Your task to perform on an android device: Add razer kraken to the cart on amazon.com Image 0: 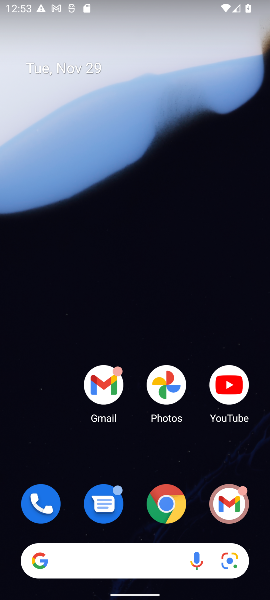
Step 0: click (167, 502)
Your task to perform on an android device: Add razer kraken to the cart on amazon.com Image 1: 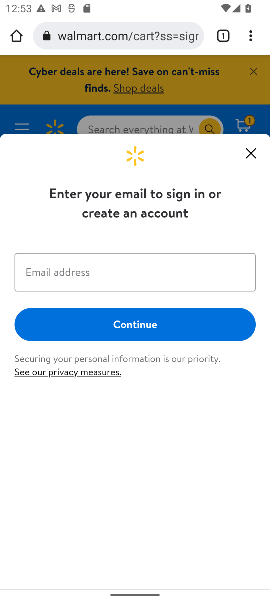
Step 1: click (102, 30)
Your task to perform on an android device: Add razer kraken to the cart on amazon.com Image 2: 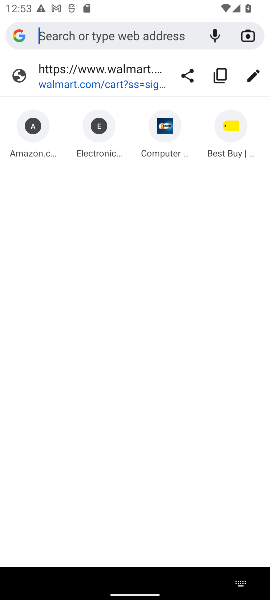
Step 2: click (27, 137)
Your task to perform on an android device: Add razer kraken to the cart on amazon.com Image 3: 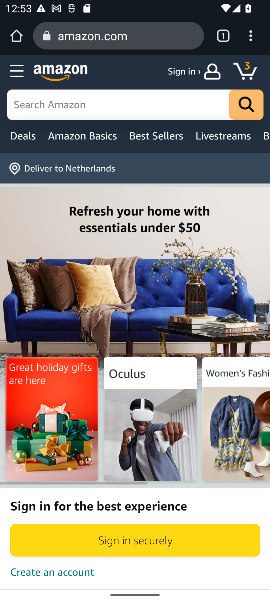
Step 3: click (86, 106)
Your task to perform on an android device: Add razer kraken to the cart on amazon.com Image 4: 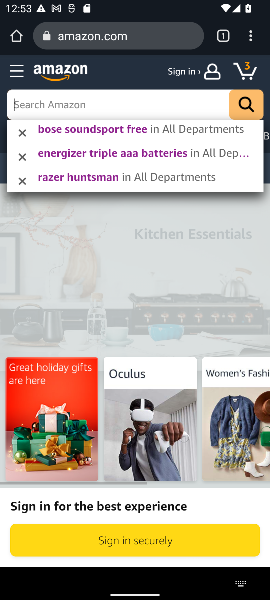
Step 4: type "razer kraken"
Your task to perform on an android device: Add razer kraken to the cart on amazon.com Image 5: 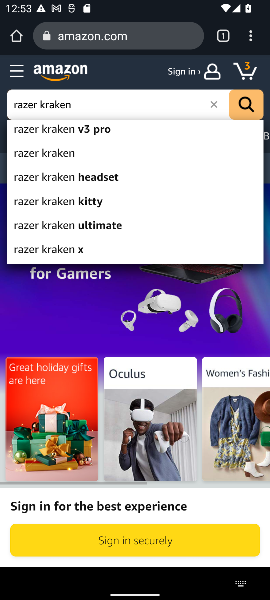
Step 5: click (48, 155)
Your task to perform on an android device: Add razer kraken to the cart on amazon.com Image 6: 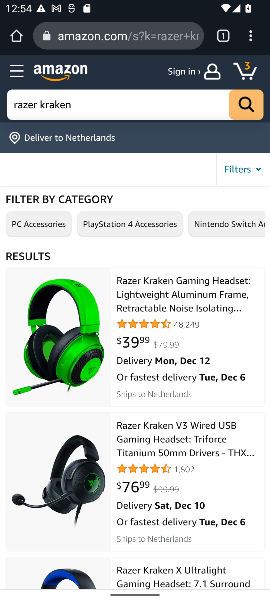
Step 6: click (136, 300)
Your task to perform on an android device: Add razer kraken to the cart on amazon.com Image 7: 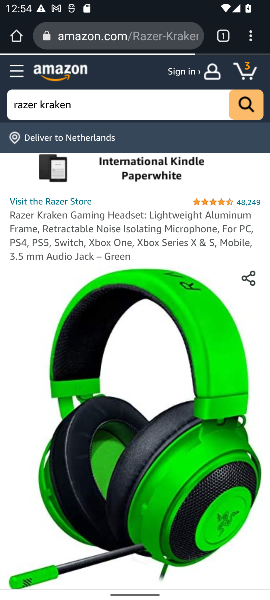
Step 7: drag from (136, 345) to (153, 101)
Your task to perform on an android device: Add razer kraken to the cart on amazon.com Image 8: 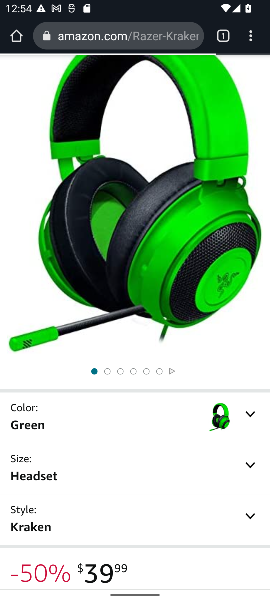
Step 8: drag from (144, 326) to (131, 107)
Your task to perform on an android device: Add razer kraken to the cart on amazon.com Image 9: 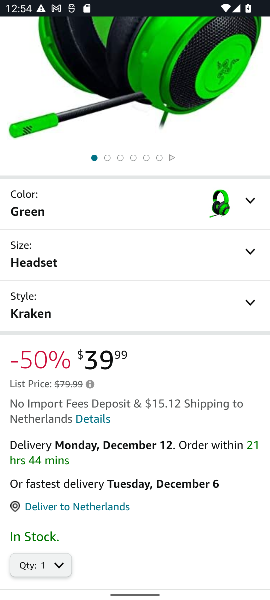
Step 9: drag from (113, 409) to (103, 162)
Your task to perform on an android device: Add razer kraken to the cart on amazon.com Image 10: 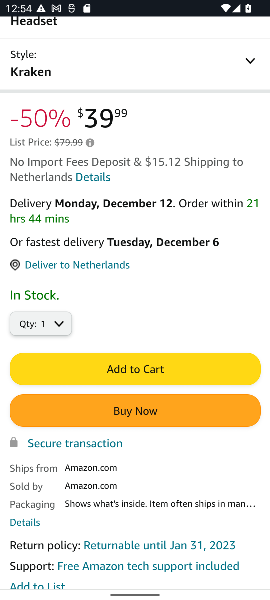
Step 10: click (123, 371)
Your task to perform on an android device: Add razer kraken to the cart on amazon.com Image 11: 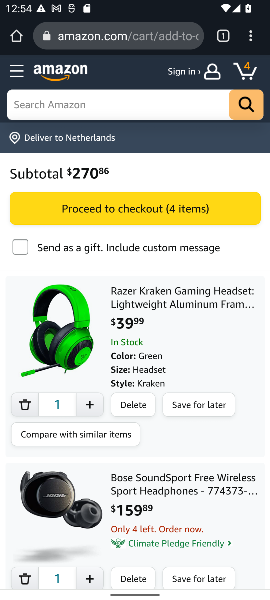
Step 11: task complete